Your task to perform on an android device: Open eBay Image 0: 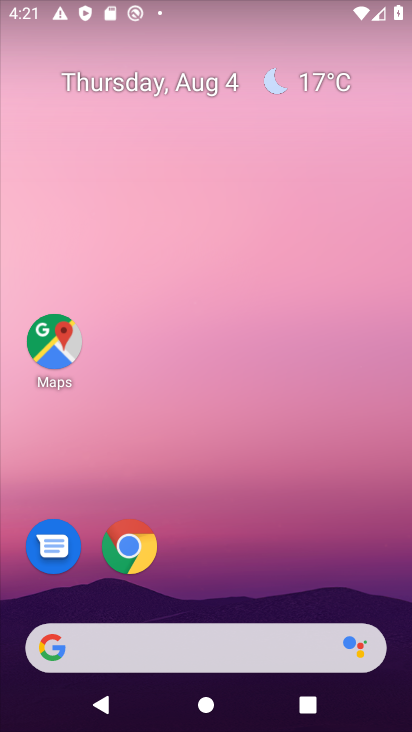
Step 0: click (130, 547)
Your task to perform on an android device: Open eBay Image 1: 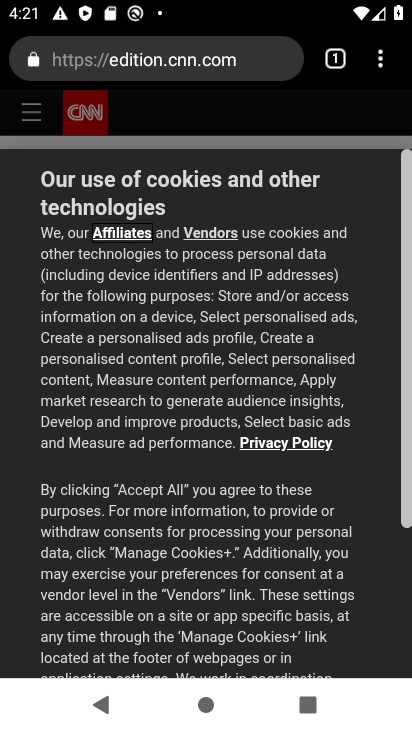
Step 1: press back button
Your task to perform on an android device: Open eBay Image 2: 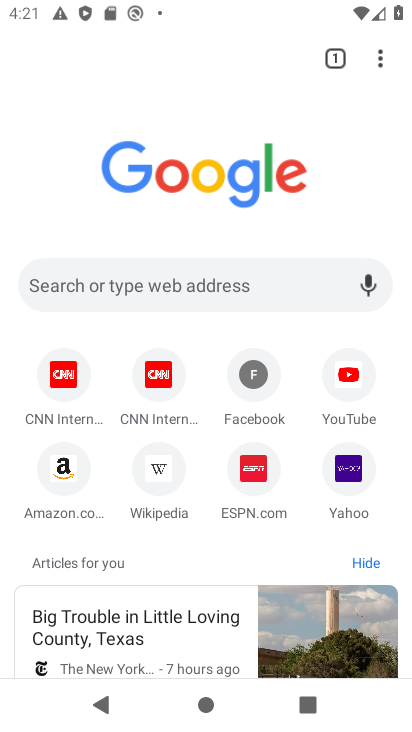
Step 2: click (217, 275)
Your task to perform on an android device: Open eBay Image 3: 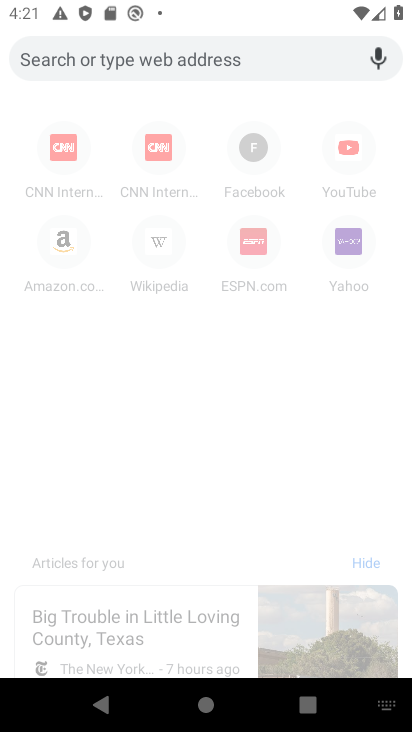
Step 3: type "www.ebay.com"
Your task to perform on an android device: Open eBay Image 4: 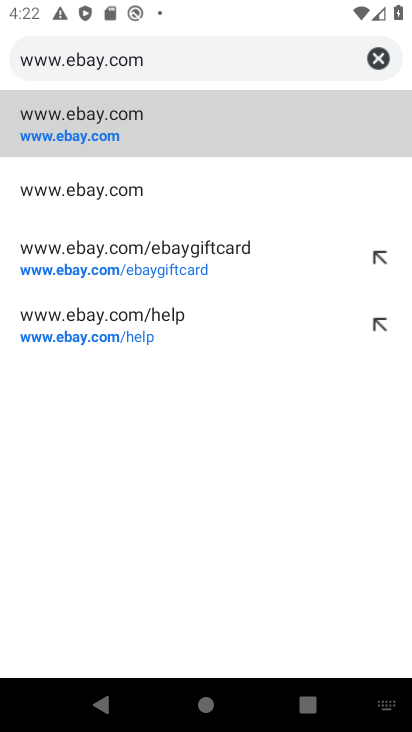
Step 4: click (85, 133)
Your task to perform on an android device: Open eBay Image 5: 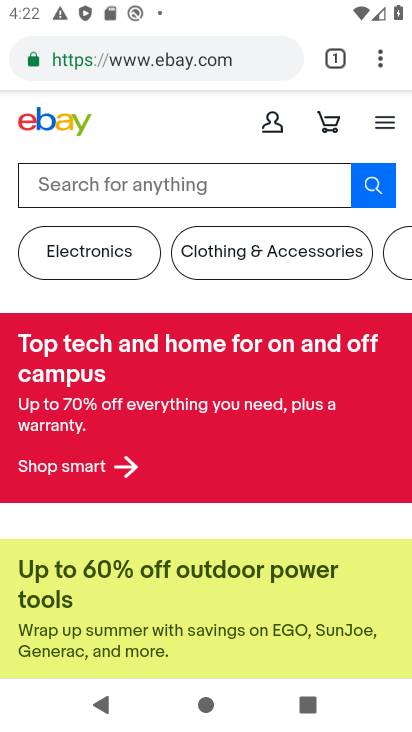
Step 5: task complete